Your task to perform on an android device: search for starred emails in the gmail app Image 0: 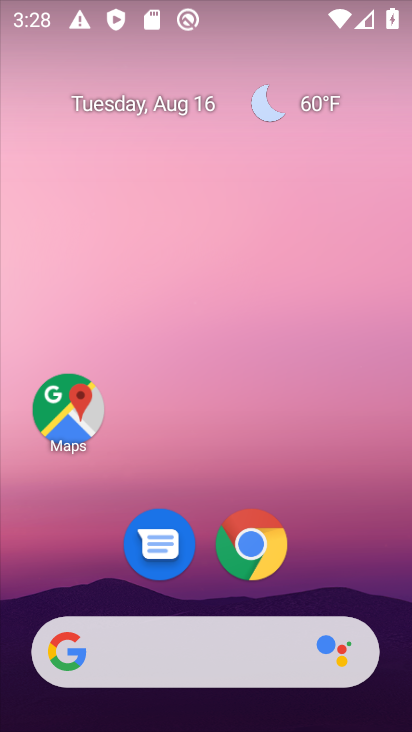
Step 0: drag from (345, 506) to (228, 12)
Your task to perform on an android device: search for starred emails in the gmail app Image 1: 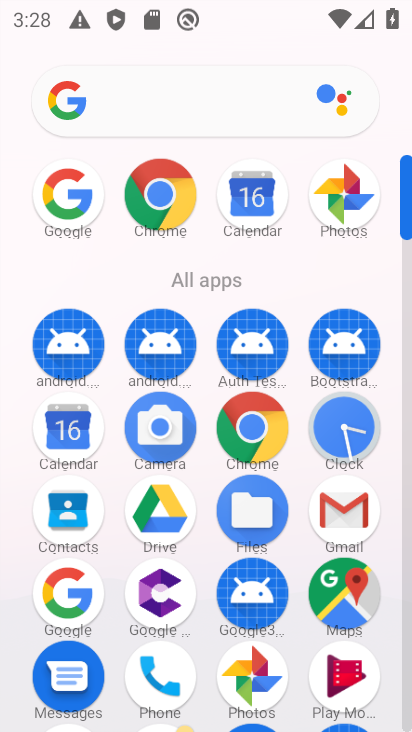
Step 1: click (333, 500)
Your task to perform on an android device: search for starred emails in the gmail app Image 2: 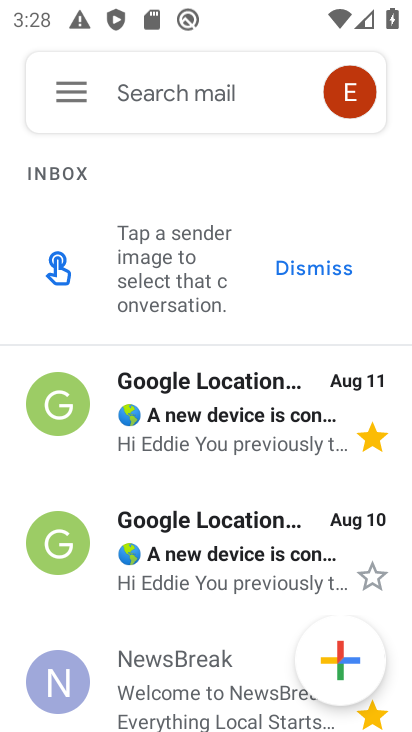
Step 2: task complete